Your task to perform on an android device: Show me popular videos on Youtube Image 0: 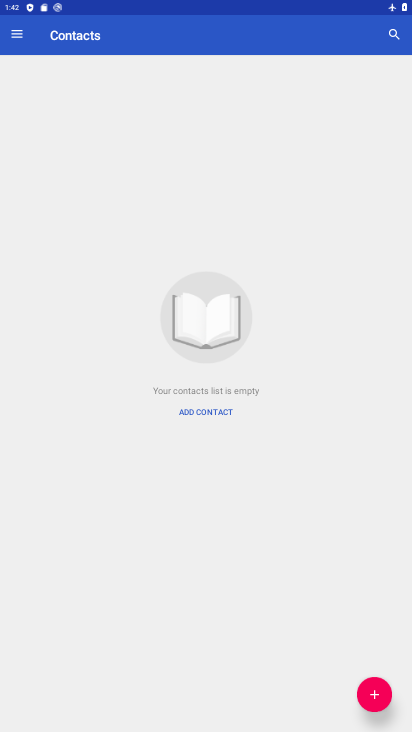
Step 0: press home button
Your task to perform on an android device: Show me popular videos on Youtube Image 1: 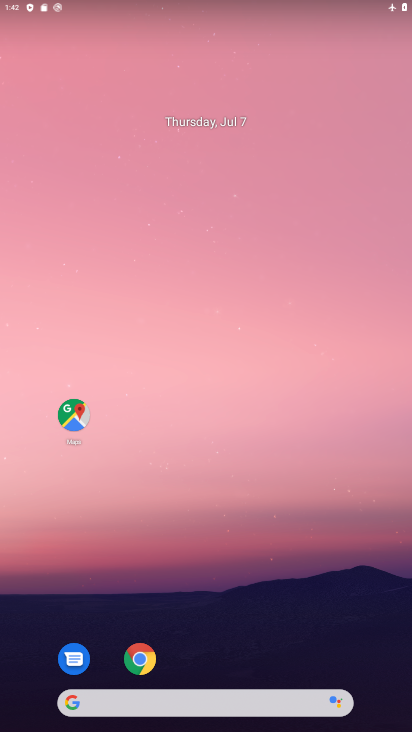
Step 1: drag from (288, 593) to (326, 71)
Your task to perform on an android device: Show me popular videos on Youtube Image 2: 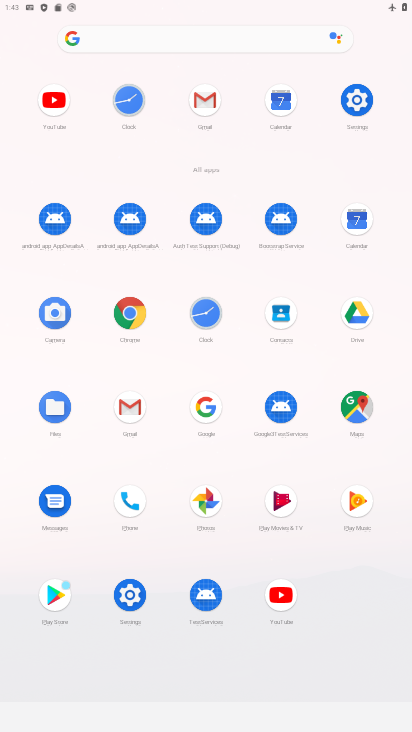
Step 2: click (288, 599)
Your task to perform on an android device: Show me popular videos on Youtube Image 3: 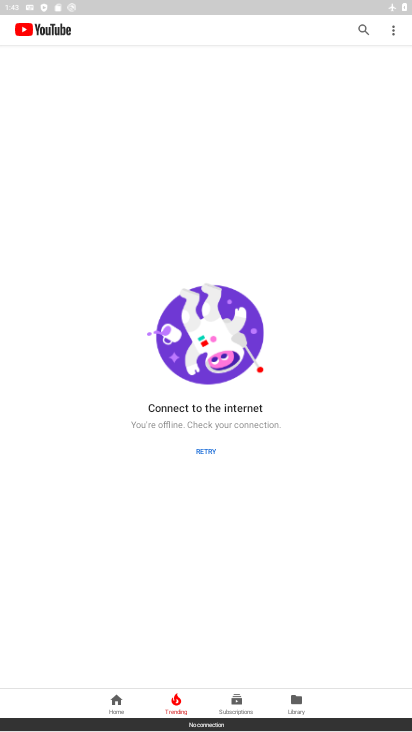
Step 3: click (202, 452)
Your task to perform on an android device: Show me popular videos on Youtube Image 4: 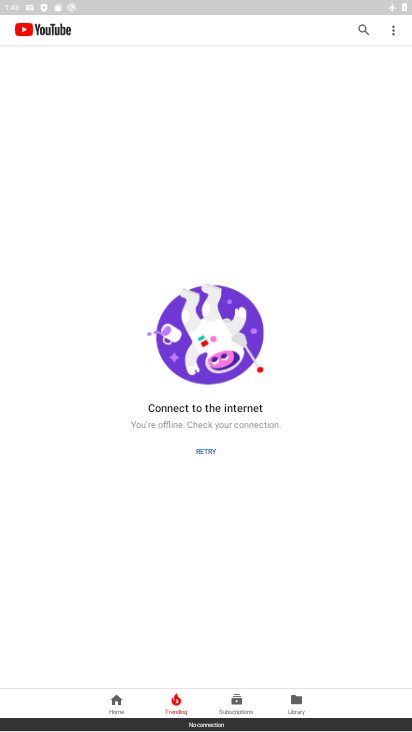
Step 4: task complete